Your task to perform on an android device: toggle pop-ups in chrome Image 0: 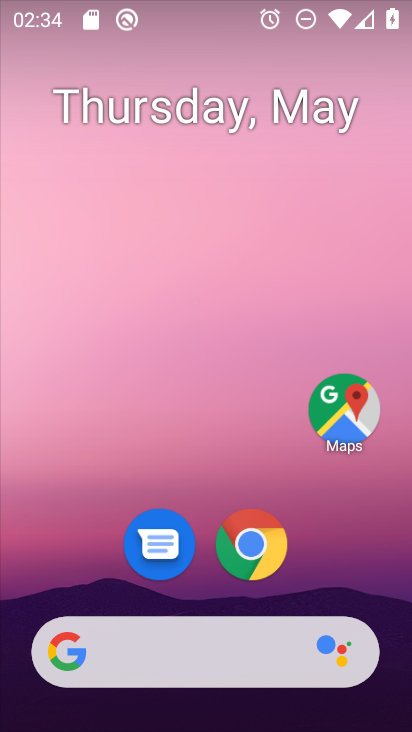
Step 0: drag from (385, 595) to (366, 244)
Your task to perform on an android device: toggle pop-ups in chrome Image 1: 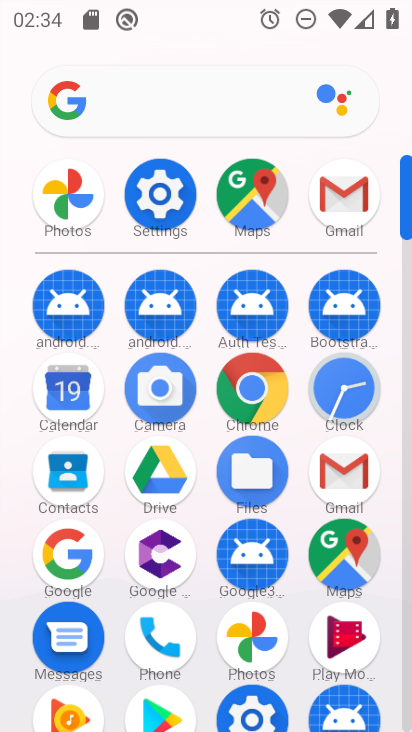
Step 1: click (242, 399)
Your task to perform on an android device: toggle pop-ups in chrome Image 2: 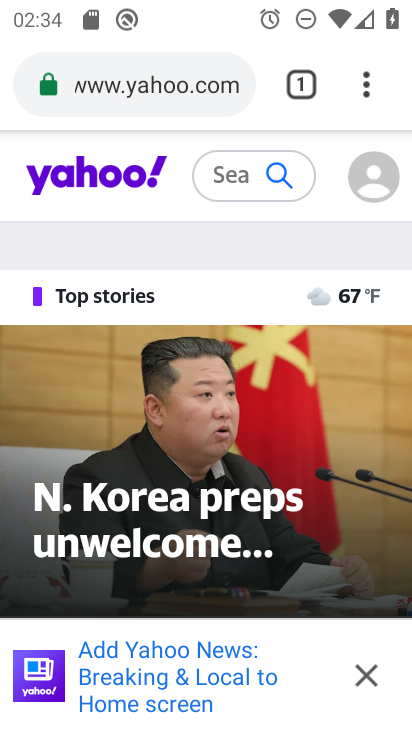
Step 2: click (371, 87)
Your task to perform on an android device: toggle pop-ups in chrome Image 3: 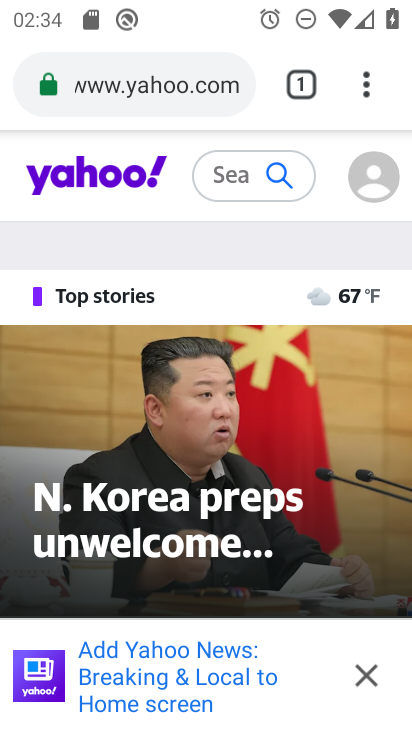
Step 3: click (371, 87)
Your task to perform on an android device: toggle pop-ups in chrome Image 4: 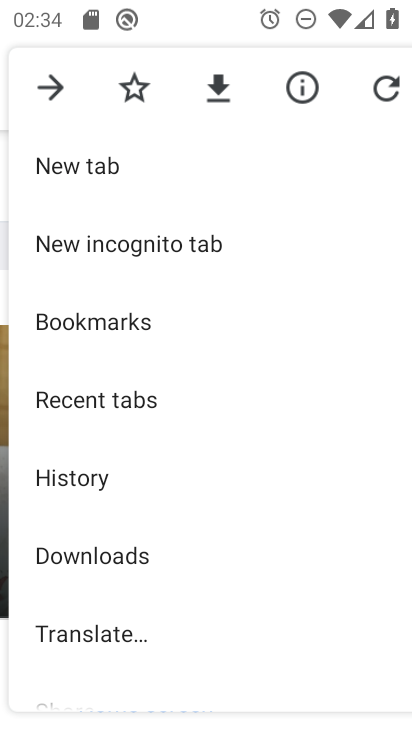
Step 4: drag from (315, 503) to (314, 392)
Your task to perform on an android device: toggle pop-ups in chrome Image 5: 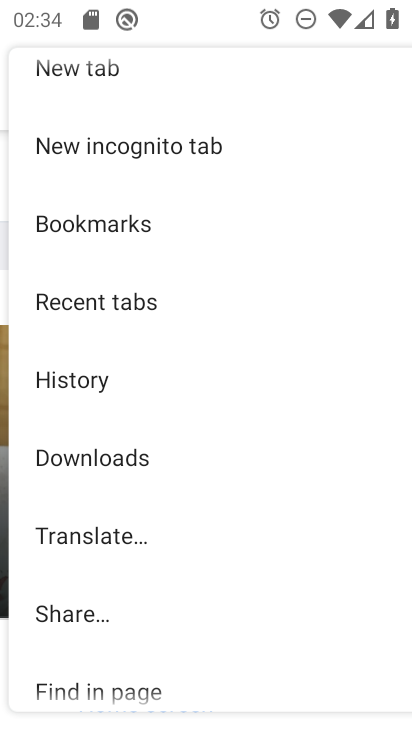
Step 5: drag from (285, 600) to (279, 438)
Your task to perform on an android device: toggle pop-ups in chrome Image 6: 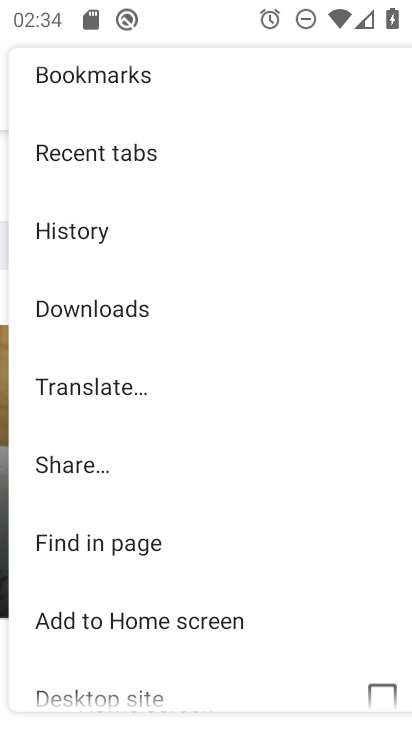
Step 6: drag from (277, 619) to (278, 479)
Your task to perform on an android device: toggle pop-ups in chrome Image 7: 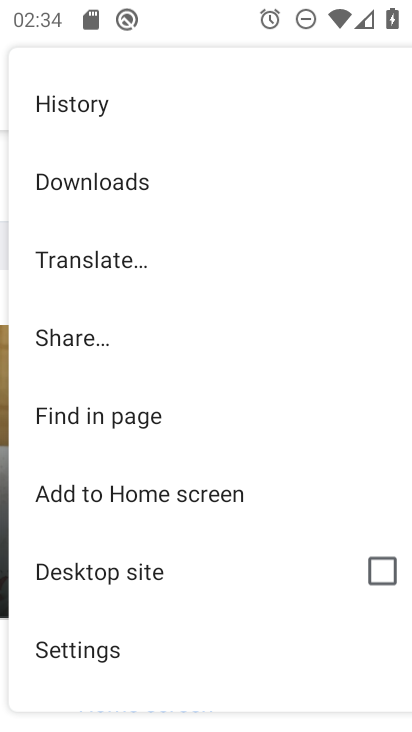
Step 7: drag from (286, 628) to (288, 515)
Your task to perform on an android device: toggle pop-ups in chrome Image 8: 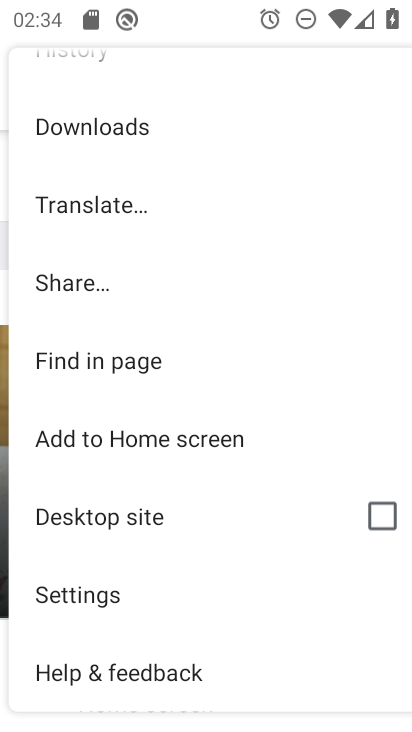
Step 8: drag from (264, 627) to (267, 516)
Your task to perform on an android device: toggle pop-ups in chrome Image 9: 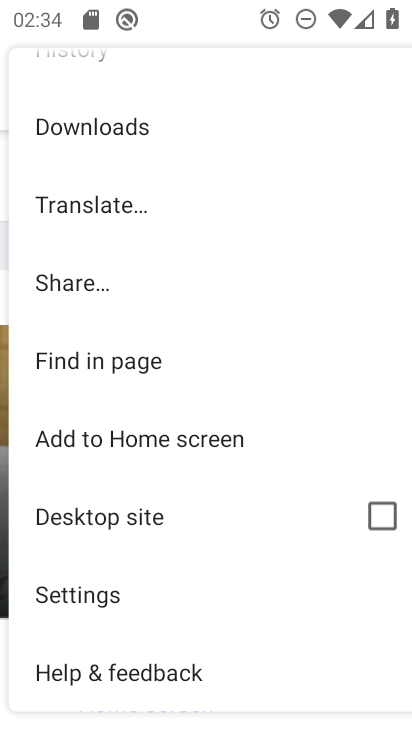
Step 9: click (124, 612)
Your task to perform on an android device: toggle pop-ups in chrome Image 10: 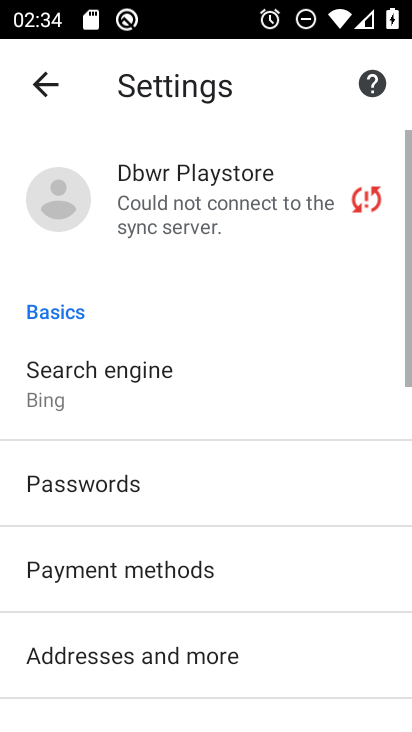
Step 10: drag from (278, 597) to (281, 502)
Your task to perform on an android device: toggle pop-ups in chrome Image 11: 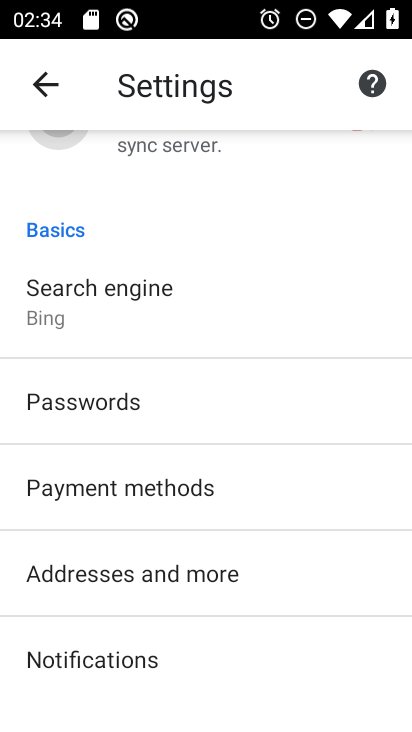
Step 11: drag from (279, 647) to (286, 535)
Your task to perform on an android device: toggle pop-ups in chrome Image 12: 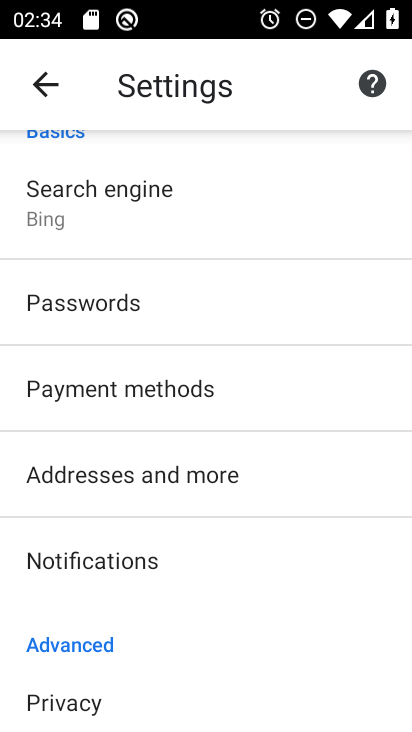
Step 12: drag from (275, 674) to (284, 574)
Your task to perform on an android device: toggle pop-ups in chrome Image 13: 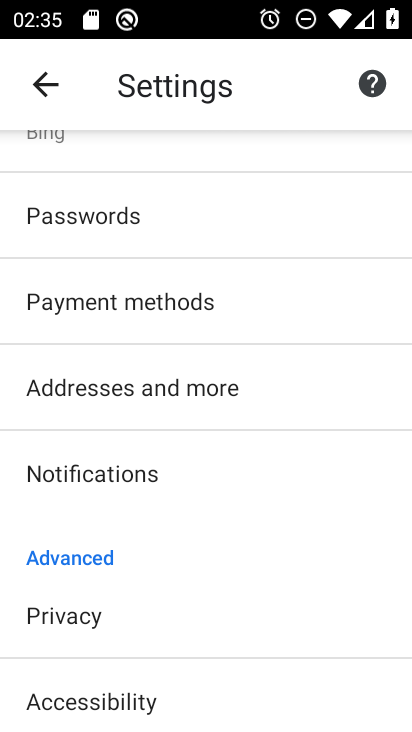
Step 13: drag from (275, 688) to (292, 598)
Your task to perform on an android device: toggle pop-ups in chrome Image 14: 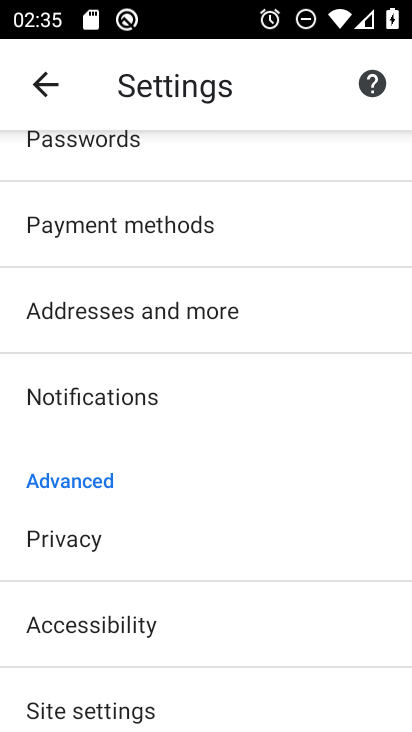
Step 14: drag from (277, 693) to (302, 563)
Your task to perform on an android device: toggle pop-ups in chrome Image 15: 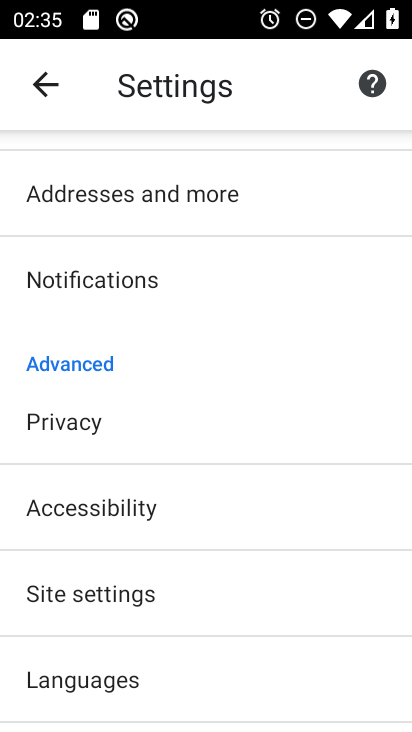
Step 15: drag from (276, 671) to (298, 547)
Your task to perform on an android device: toggle pop-ups in chrome Image 16: 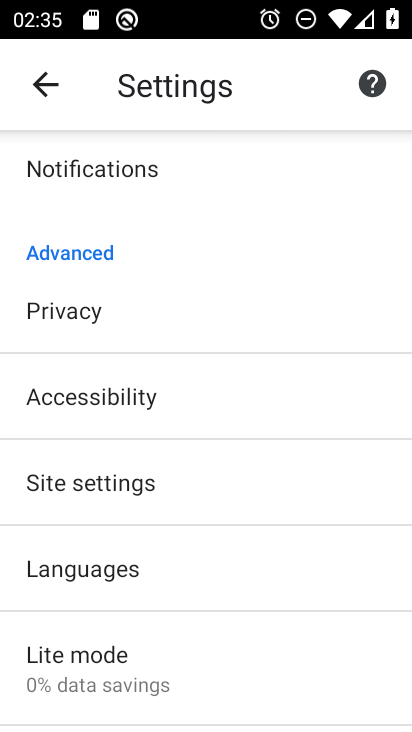
Step 16: drag from (283, 662) to (304, 553)
Your task to perform on an android device: toggle pop-ups in chrome Image 17: 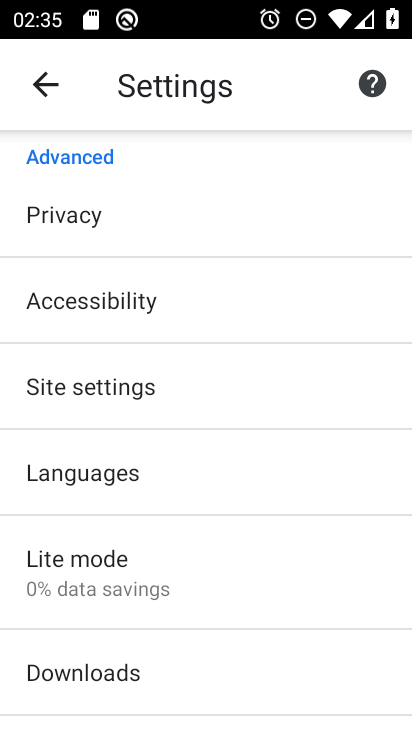
Step 17: drag from (284, 671) to (306, 559)
Your task to perform on an android device: toggle pop-ups in chrome Image 18: 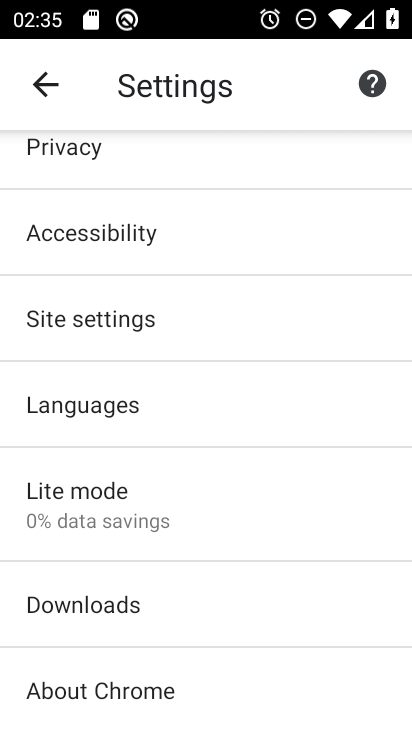
Step 18: drag from (270, 670) to (281, 558)
Your task to perform on an android device: toggle pop-ups in chrome Image 19: 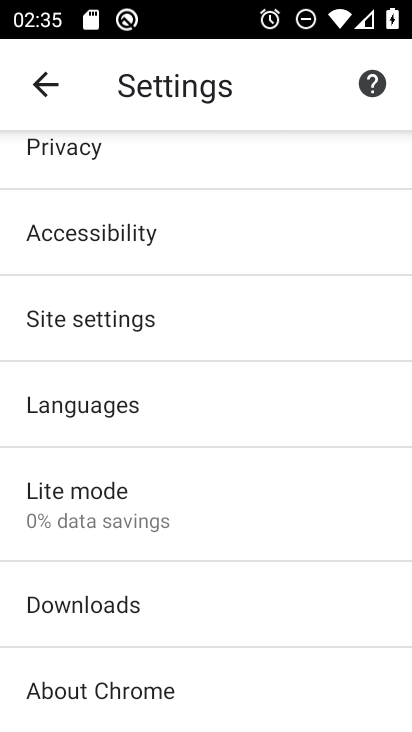
Step 19: drag from (243, 383) to (243, 498)
Your task to perform on an android device: toggle pop-ups in chrome Image 20: 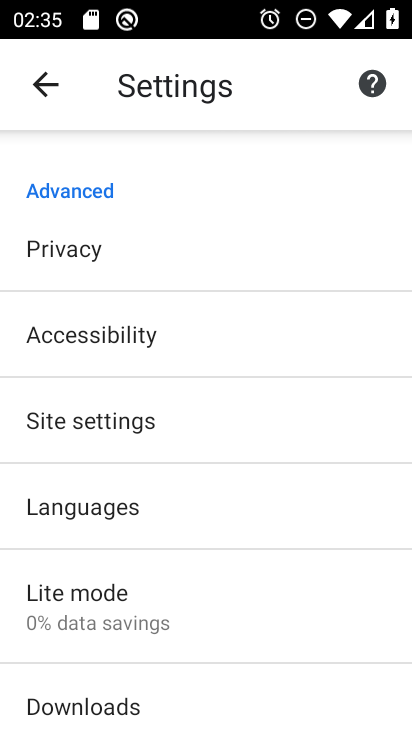
Step 20: drag from (222, 592) to (222, 460)
Your task to perform on an android device: toggle pop-ups in chrome Image 21: 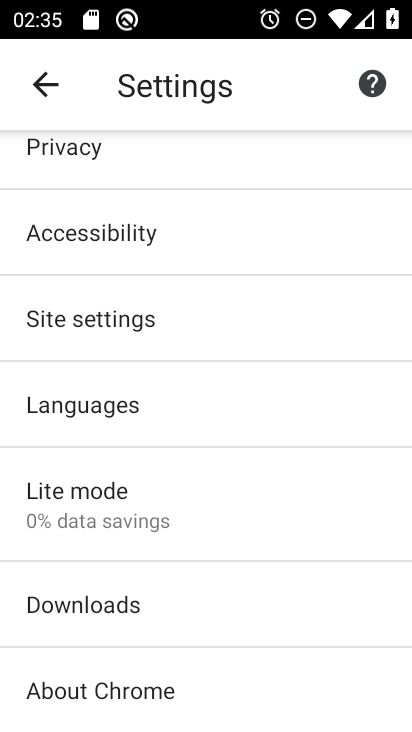
Step 21: drag from (235, 407) to (235, 523)
Your task to perform on an android device: toggle pop-ups in chrome Image 22: 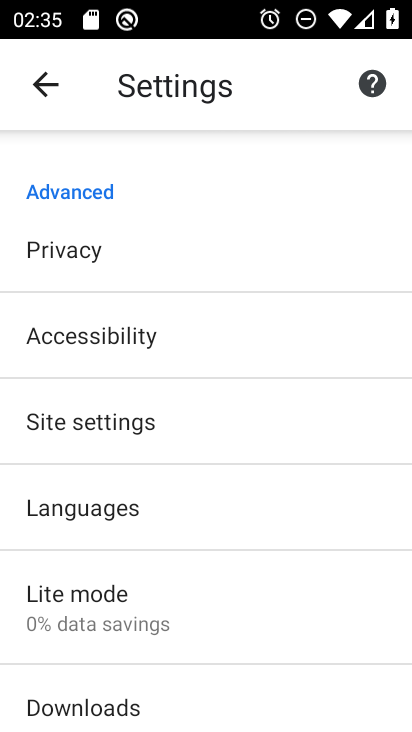
Step 22: drag from (242, 394) to (238, 480)
Your task to perform on an android device: toggle pop-ups in chrome Image 23: 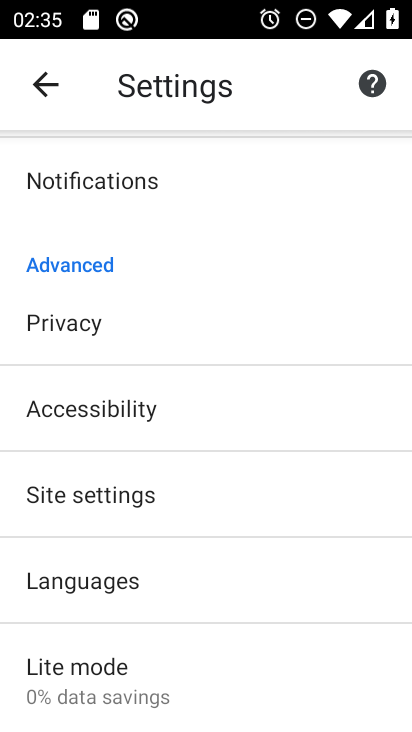
Step 23: drag from (235, 498) to (243, 430)
Your task to perform on an android device: toggle pop-ups in chrome Image 24: 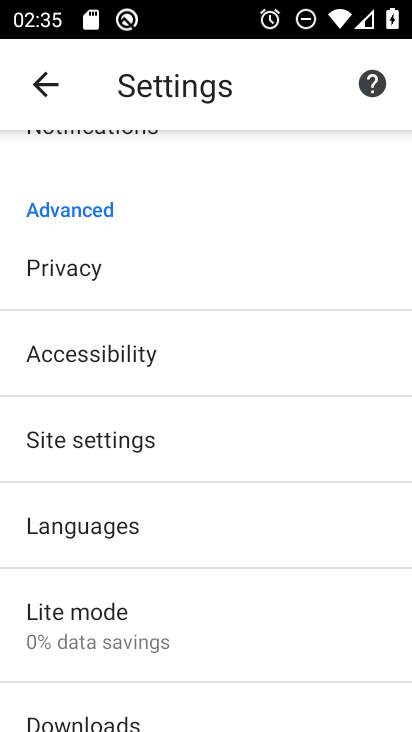
Step 24: click (230, 465)
Your task to perform on an android device: toggle pop-ups in chrome Image 25: 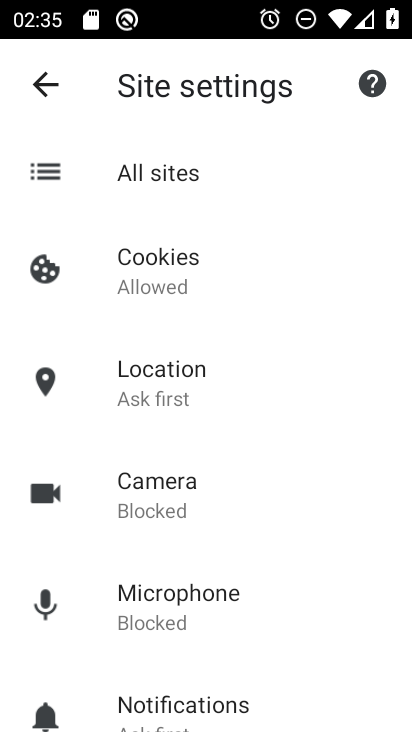
Step 25: drag from (271, 571) to (272, 477)
Your task to perform on an android device: toggle pop-ups in chrome Image 26: 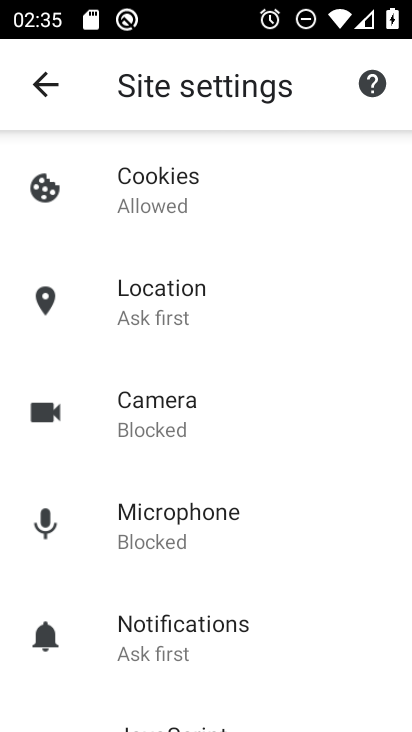
Step 26: drag from (282, 585) to (298, 511)
Your task to perform on an android device: toggle pop-ups in chrome Image 27: 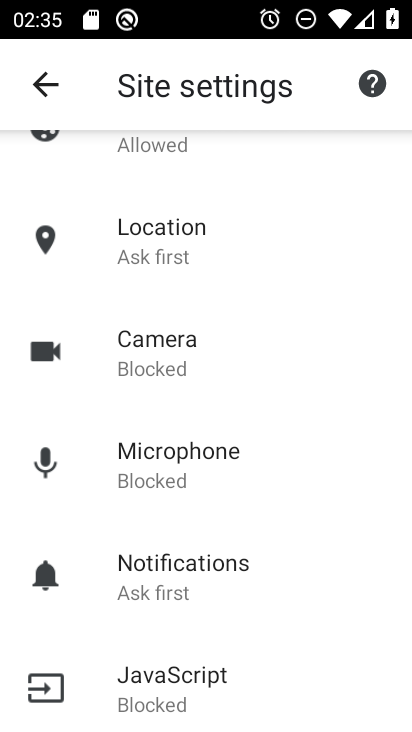
Step 27: drag from (295, 555) to (308, 483)
Your task to perform on an android device: toggle pop-ups in chrome Image 28: 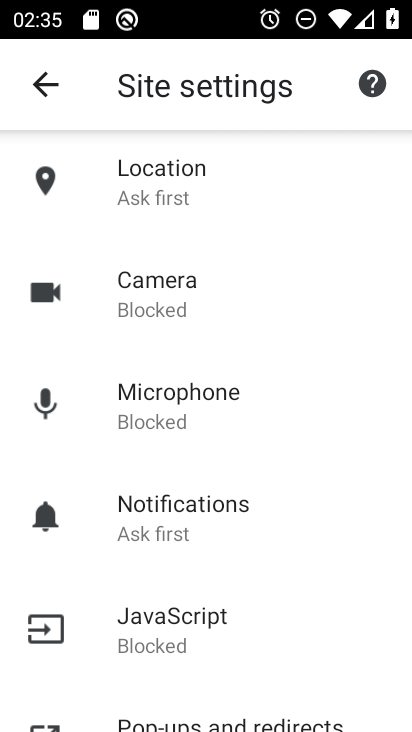
Step 28: drag from (313, 575) to (323, 504)
Your task to perform on an android device: toggle pop-ups in chrome Image 29: 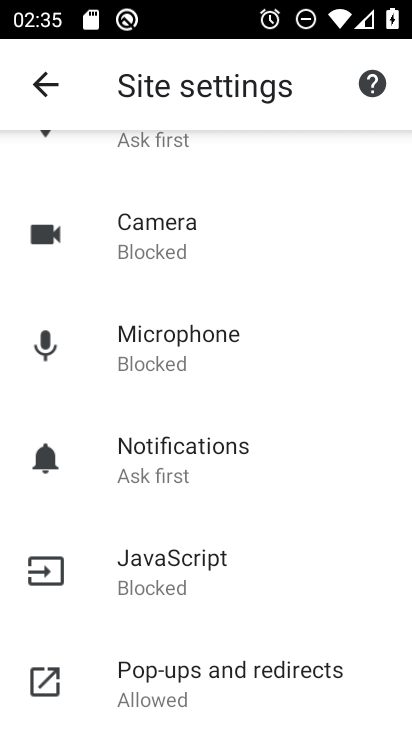
Step 29: drag from (326, 390) to (316, 494)
Your task to perform on an android device: toggle pop-ups in chrome Image 30: 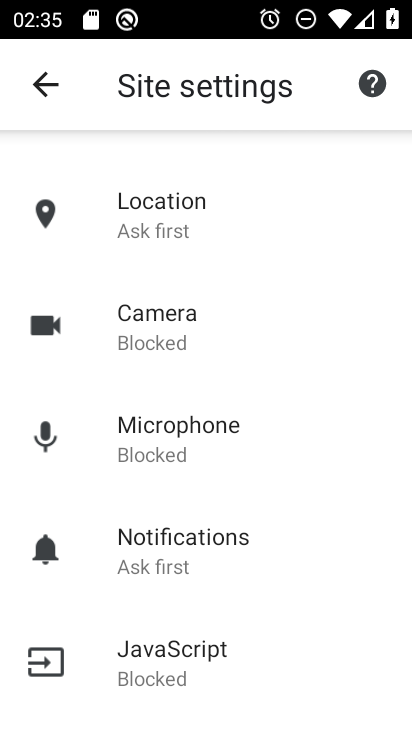
Step 30: drag from (297, 568) to (299, 480)
Your task to perform on an android device: toggle pop-ups in chrome Image 31: 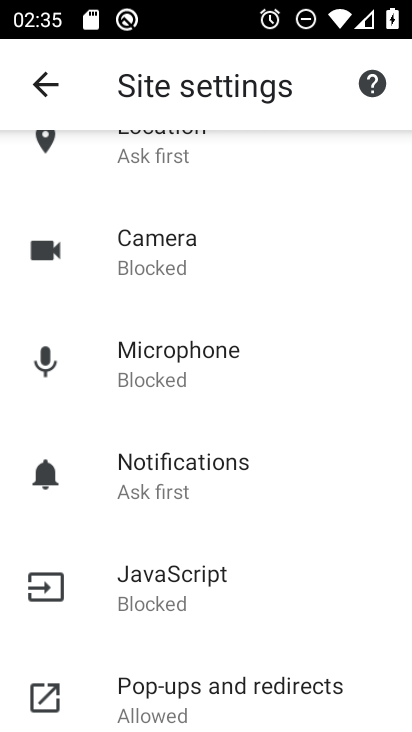
Step 31: drag from (276, 627) to (303, 519)
Your task to perform on an android device: toggle pop-ups in chrome Image 32: 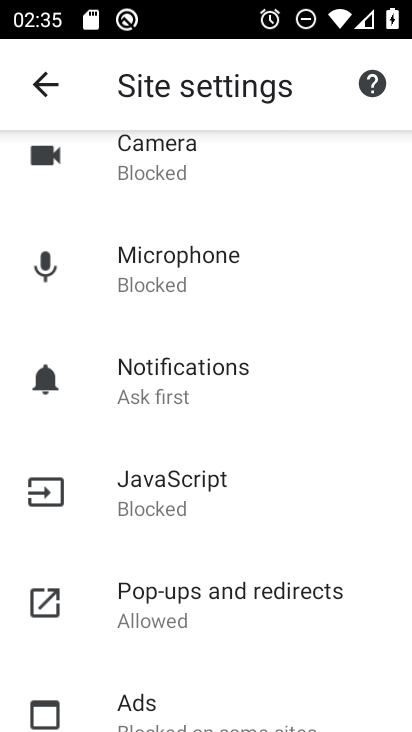
Step 32: drag from (305, 637) to (314, 547)
Your task to perform on an android device: toggle pop-ups in chrome Image 33: 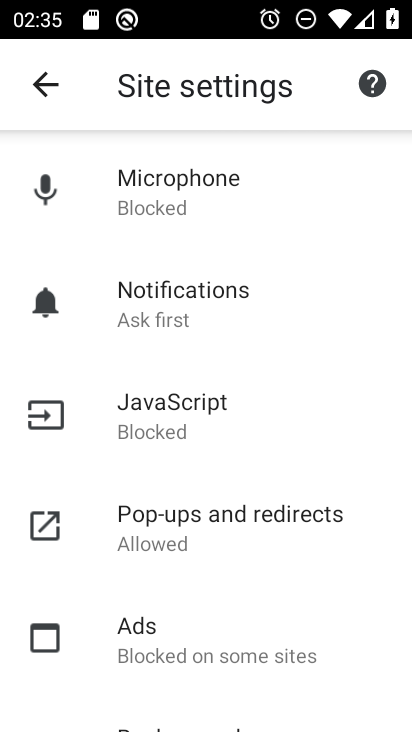
Step 33: click (268, 534)
Your task to perform on an android device: toggle pop-ups in chrome Image 34: 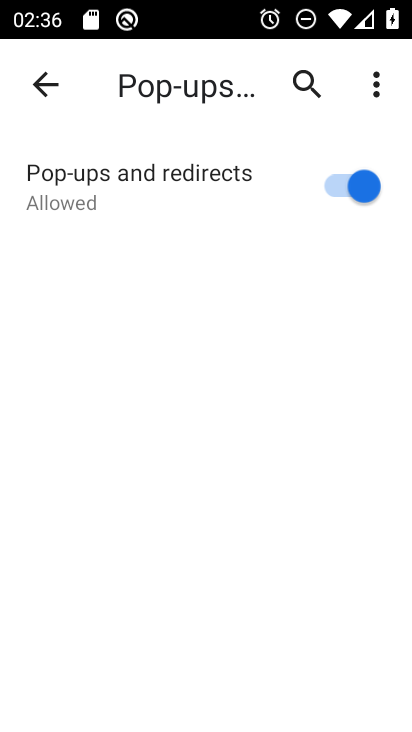
Step 34: click (348, 193)
Your task to perform on an android device: toggle pop-ups in chrome Image 35: 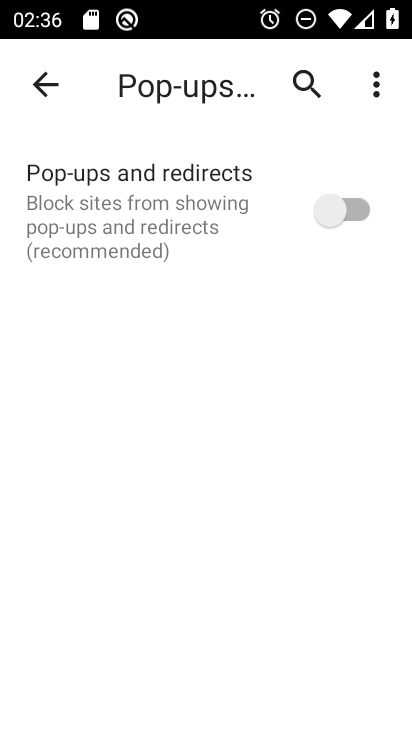
Step 35: task complete